Your task to perform on an android device: Open Google Maps and go to "Timeline" Image 0: 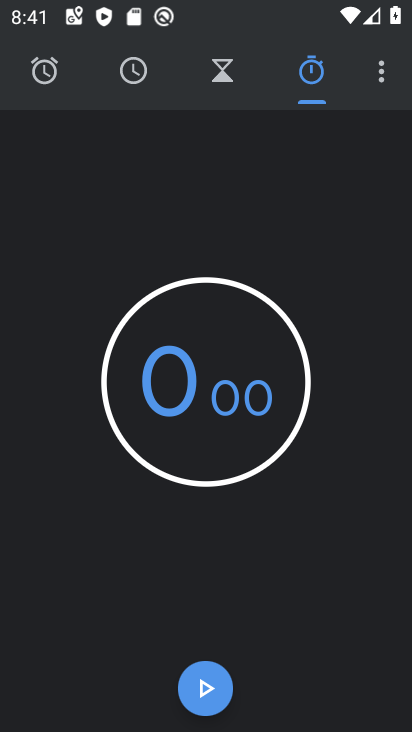
Step 0: press home button
Your task to perform on an android device: Open Google Maps and go to "Timeline" Image 1: 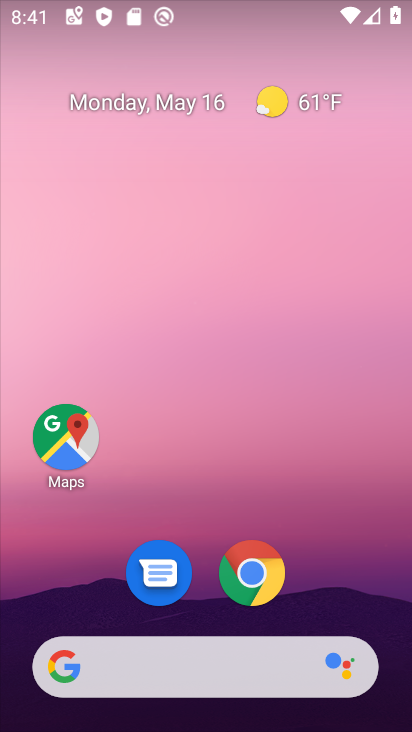
Step 1: drag from (209, 726) to (209, 76)
Your task to perform on an android device: Open Google Maps and go to "Timeline" Image 2: 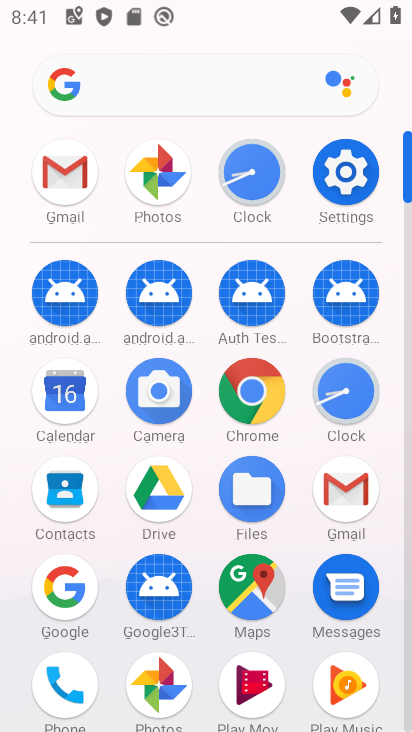
Step 2: click (255, 589)
Your task to perform on an android device: Open Google Maps and go to "Timeline" Image 3: 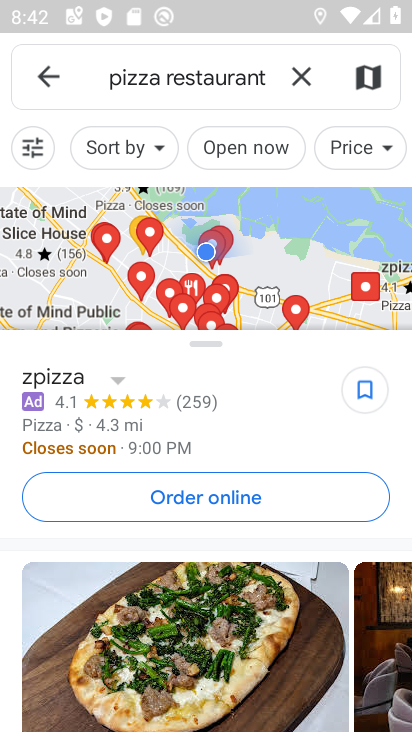
Step 3: click (46, 73)
Your task to perform on an android device: Open Google Maps and go to "Timeline" Image 4: 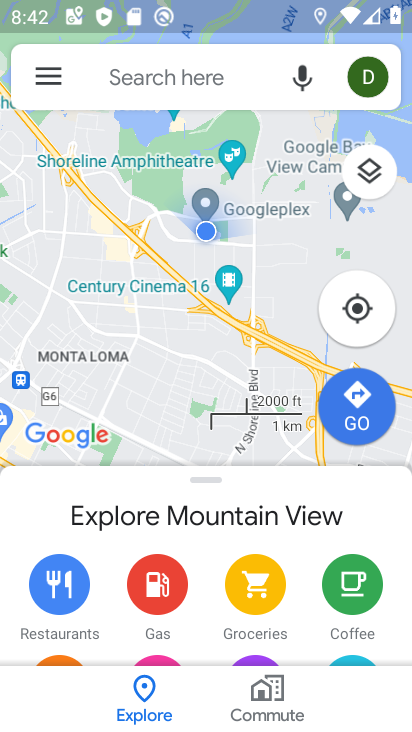
Step 4: click (46, 73)
Your task to perform on an android device: Open Google Maps and go to "Timeline" Image 5: 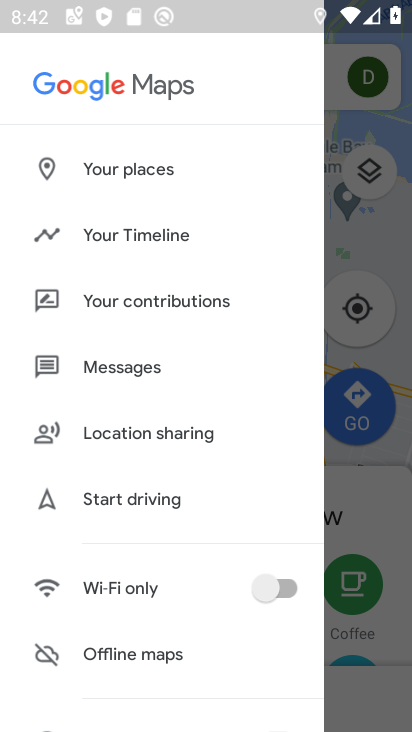
Step 5: click (122, 239)
Your task to perform on an android device: Open Google Maps and go to "Timeline" Image 6: 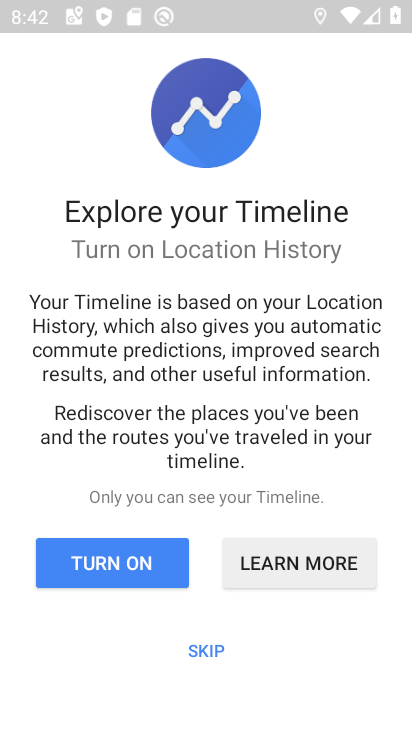
Step 6: click (199, 641)
Your task to perform on an android device: Open Google Maps and go to "Timeline" Image 7: 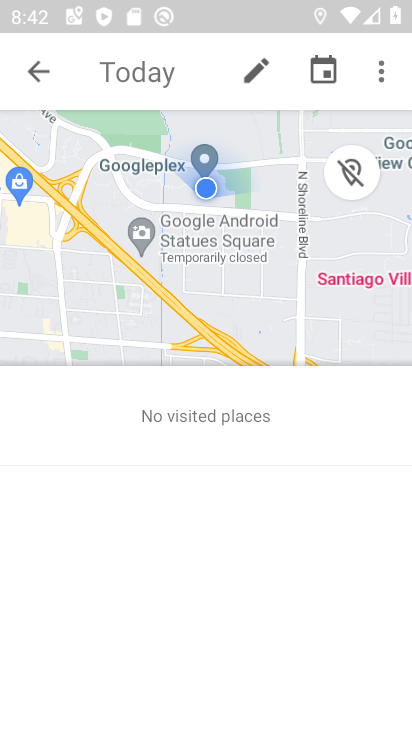
Step 7: task complete